Your task to perform on an android device: remove spam from my inbox in the gmail app Image 0: 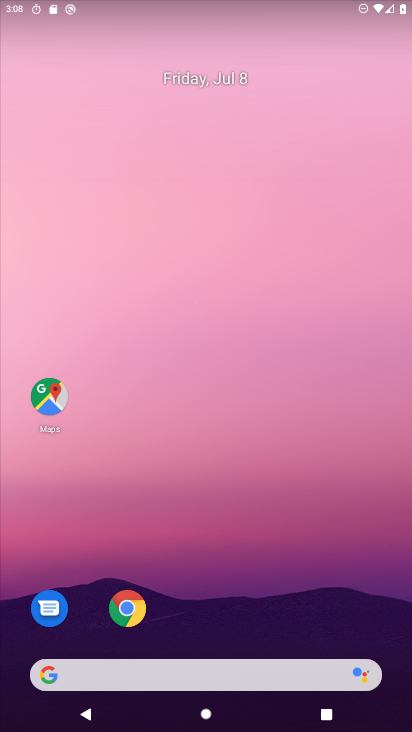
Step 0: drag from (253, 719) to (270, 147)
Your task to perform on an android device: remove spam from my inbox in the gmail app Image 1: 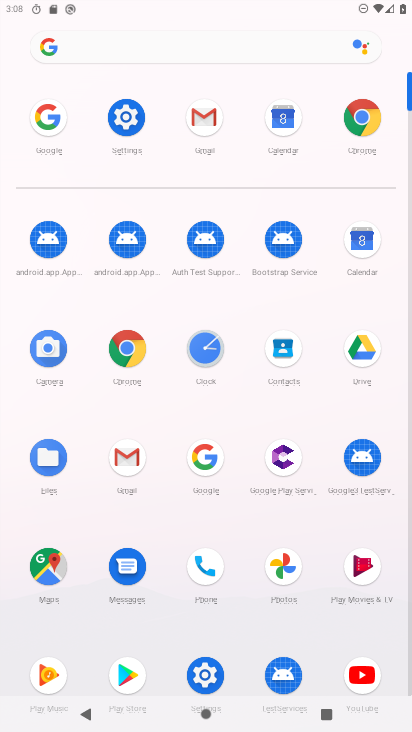
Step 1: click (134, 462)
Your task to perform on an android device: remove spam from my inbox in the gmail app Image 2: 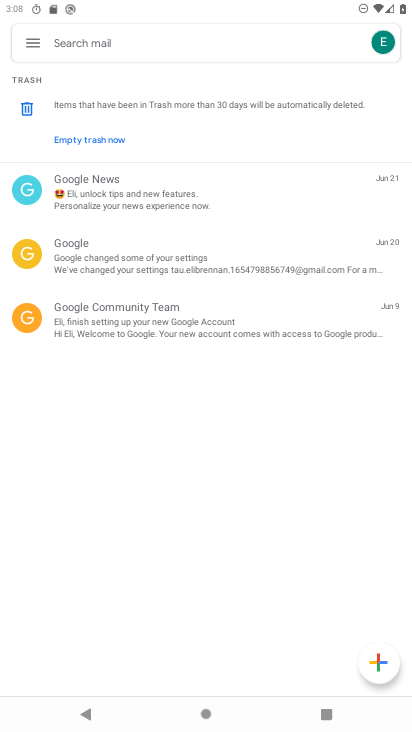
Step 2: click (29, 46)
Your task to perform on an android device: remove spam from my inbox in the gmail app Image 3: 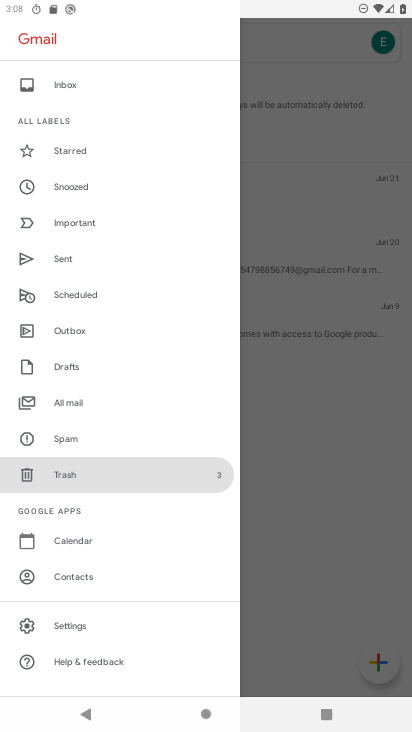
Step 3: click (82, 91)
Your task to perform on an android device: remove spam from my inbox in the gmail app Image 4: 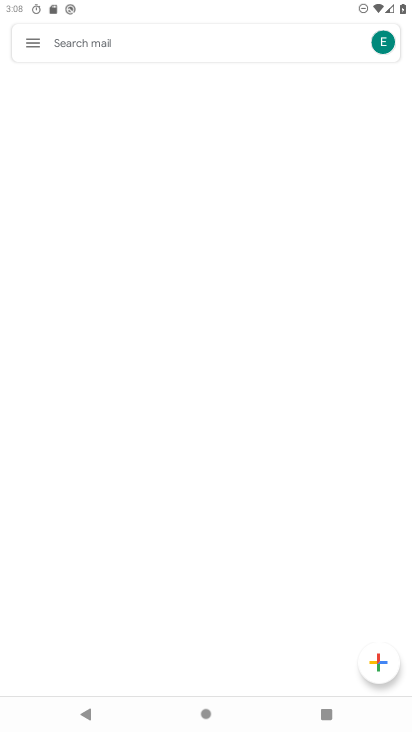
Step 4: drag from (94, 347) to (94, 387)
Your task to perform on an android device: remove spam from my inbox in the gmail app Image 5: 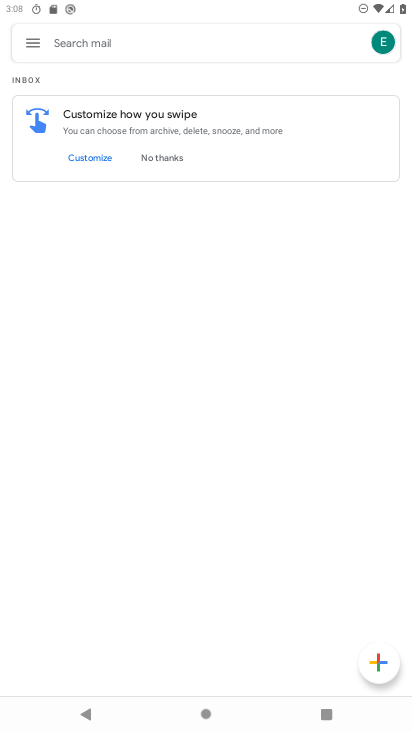
Step 5: click (34, 46)
Your task to perform on an android device: remove spam from my inbox in the gmail app Image 6: 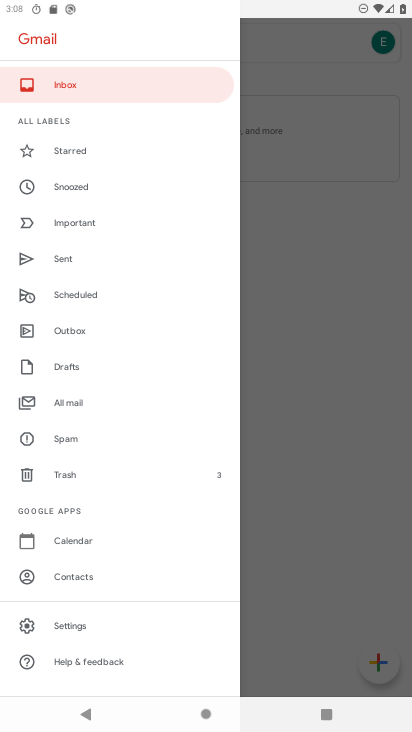
Step 6: click (82, 85)
Your task to perform on an android device: remove spam from my inbox in the gmail app Image 7: 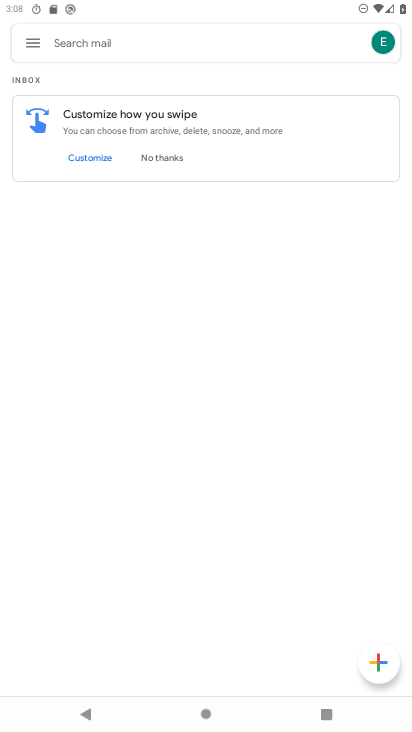
Step 7: task complete